Your task to perform on an android device: see creations saved in the google photos Image 0: 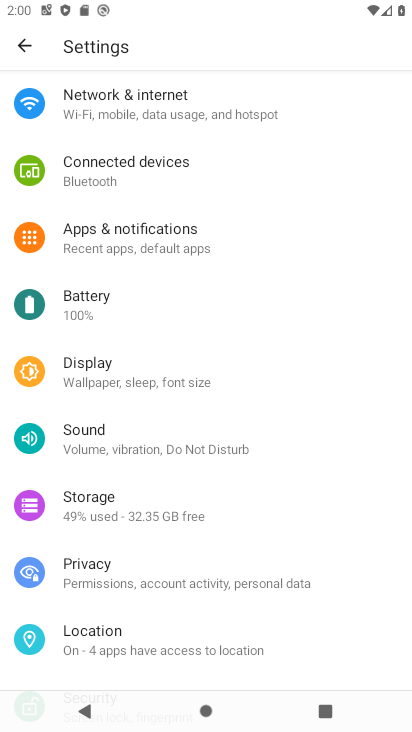
Step 0: press home button
Your task to perform on an android device: see creations saved in the google photos Image 1: 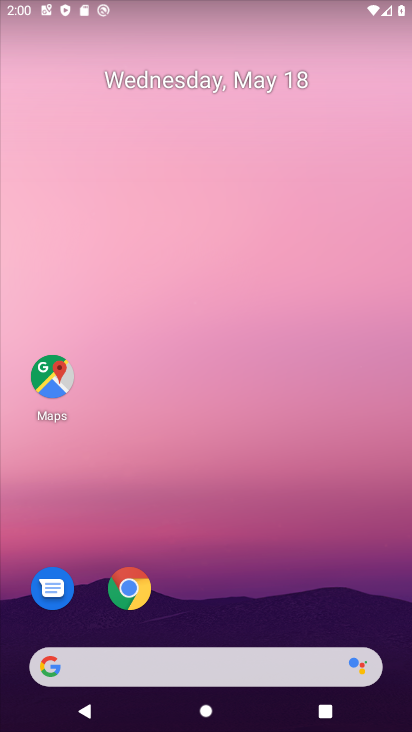
Step 1: drag from (350, 606) to (336, 174)
Your task to perform on an android device: see creations saved in the google photos Image 2: 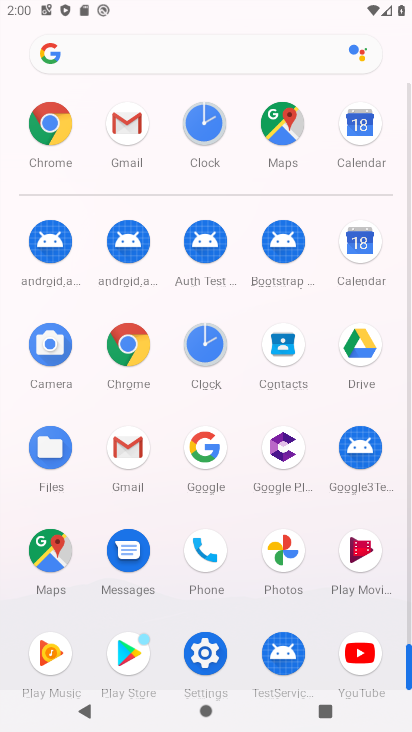
Step 2: drag from (240, 601) to (235, 443)
Your task to perform on an android device: see creations saved in the google photos Image 3: 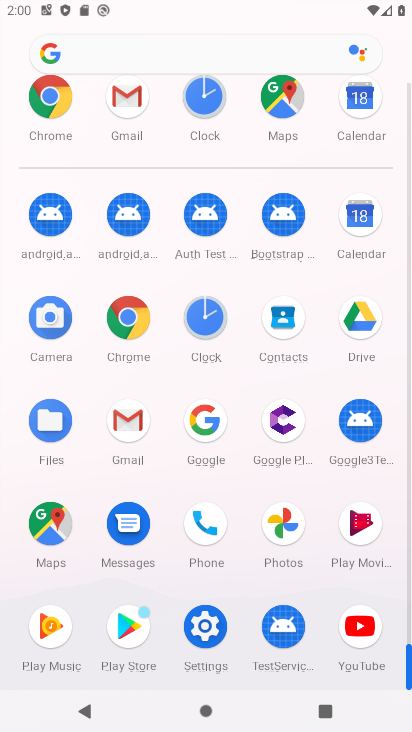
Step 3: click (276, 516)
Your task to perform on an android device: see creations saved in the google photos Image 4: 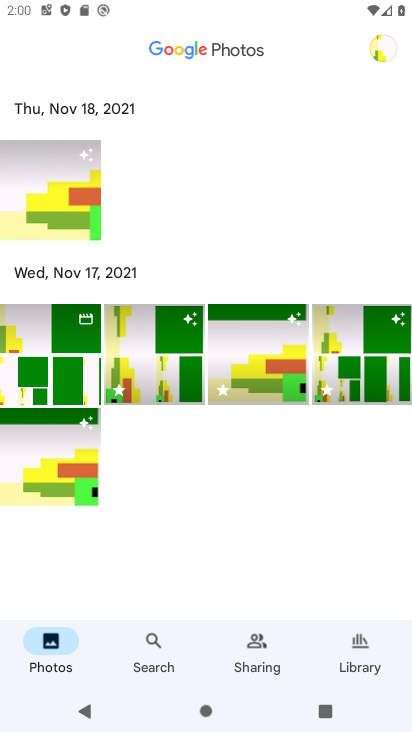
Step 4: click (153, 639)
Your task to perform on an android device: see creations saved in the google photos Image 5: 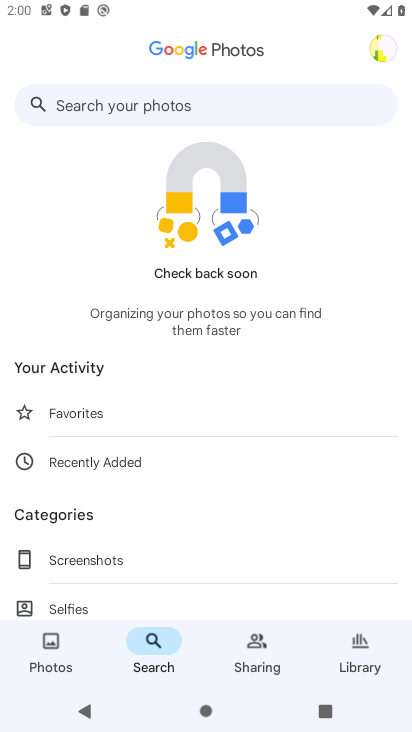
Step 5: drag from (191, 524) to (202, 325)
Your task to perform on an android device: see creations saved in the google photos Image 6: 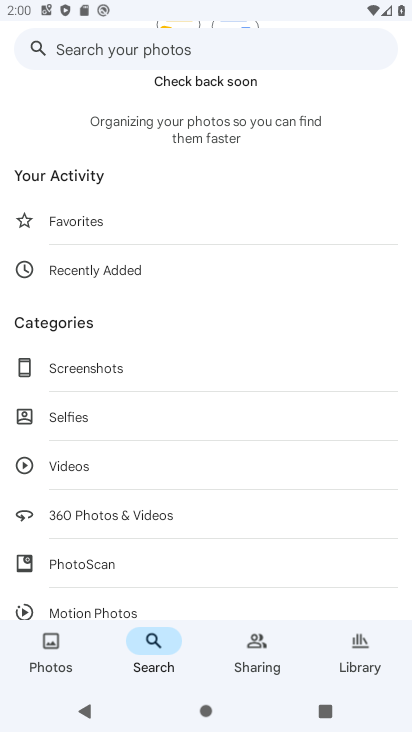
Step 6: drag from (207, 522) to (211, 368)
Your task to perform on an android device: see creations saved in the google photos Image 7: 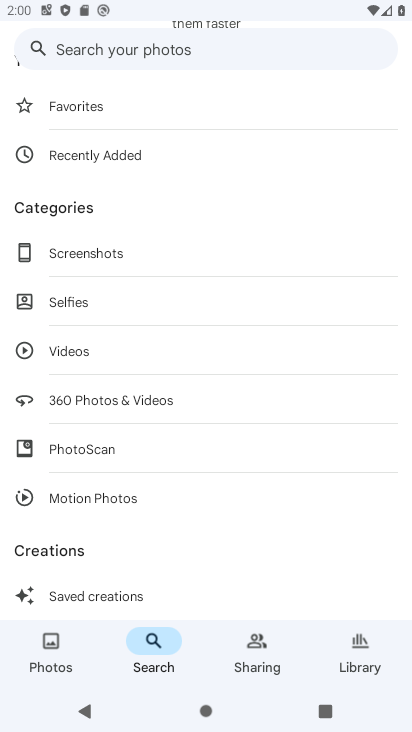
Step 7: drag from (190, 543) to (183, 355)
Your task to perform on an android device: see creations saved in the google photos Image 8: 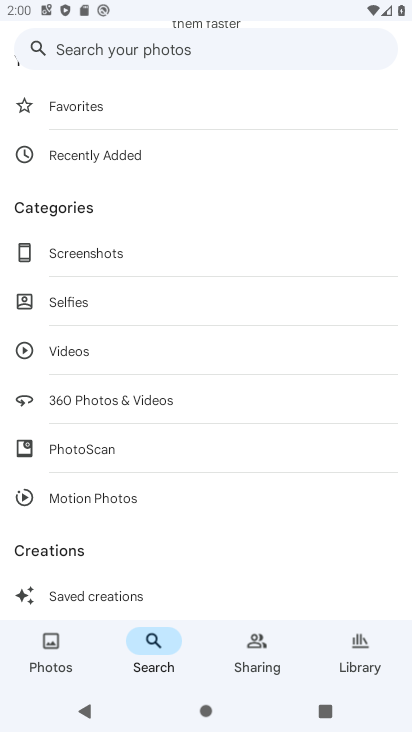
Step 8: click (115, 599)
Your task to perform on an android device: see creations saved in the google photos Image 9: 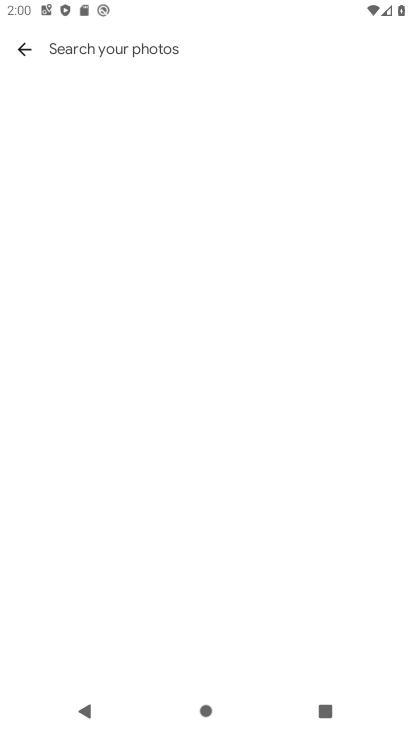
Step 9: drag from (215, 546) to (228, 248)
Your task to perform on an android device: see creations saved in the google photos Image 10: 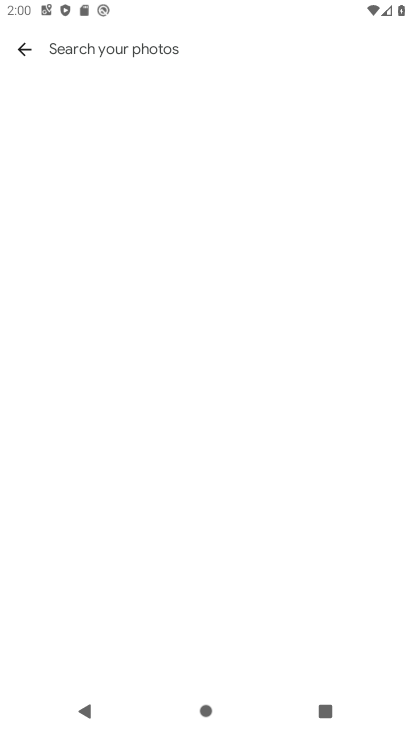
Step 10: click (22, 45)
Your task to perform on an android device: see creations saved in the google photos Image 11: 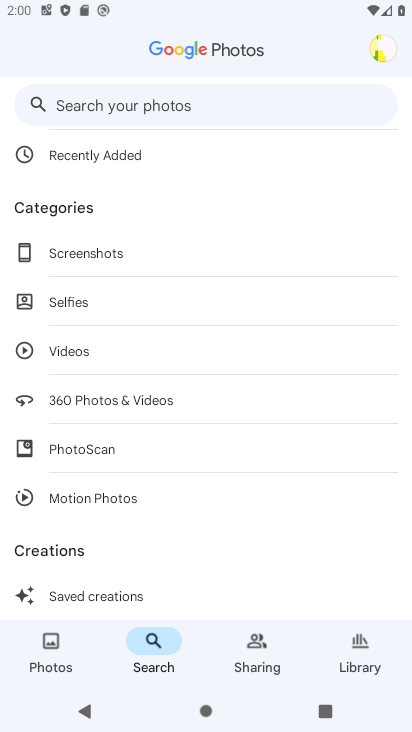
Step 11: click (89, 600)
Your task to perform on an android device: see creations saved in the google photos Image 12: 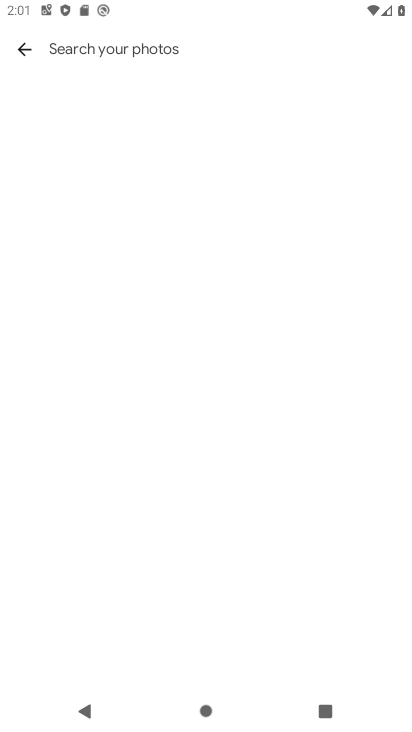
Step 12: task complete